Your task to perform on an android device: Open Google Maps Image 0: 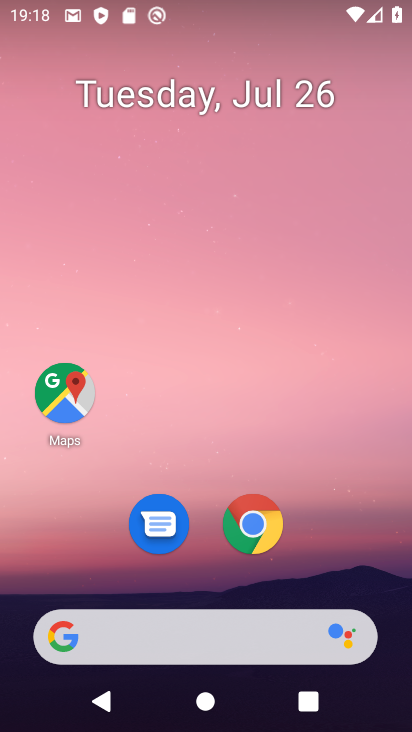
Step 0: click (72, 387)
Your task to perform on an android device: Open Google Maps Image 1: 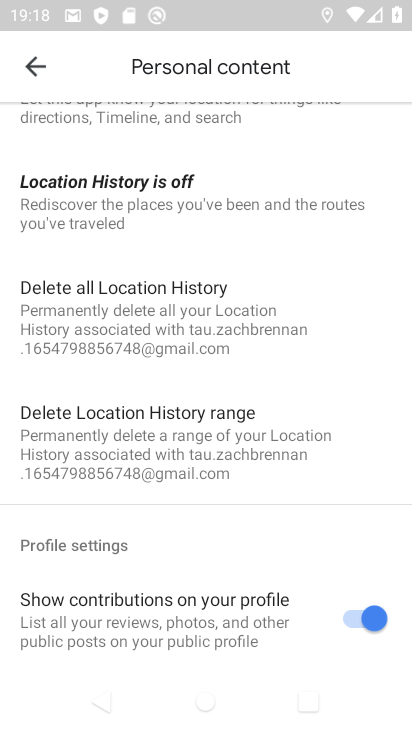
Step 1: click (42, 73)
Your task to perform on an android device: Open Google Maps Image 2: 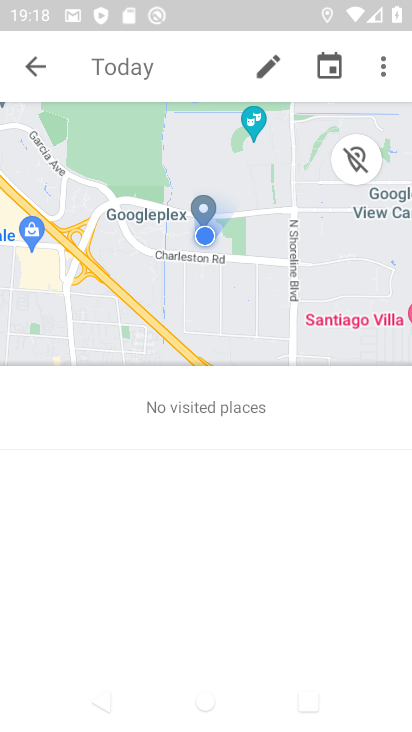
Step 2: click (42, 73)
Your task to perform on an android device: Open Google Maps Image 3: 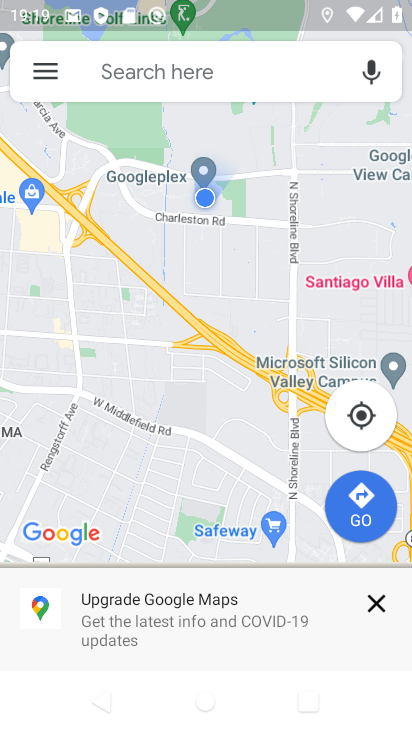
Step 3: click (371, 594)
Your task to perform on an android device: Open Google Maps Image 4: 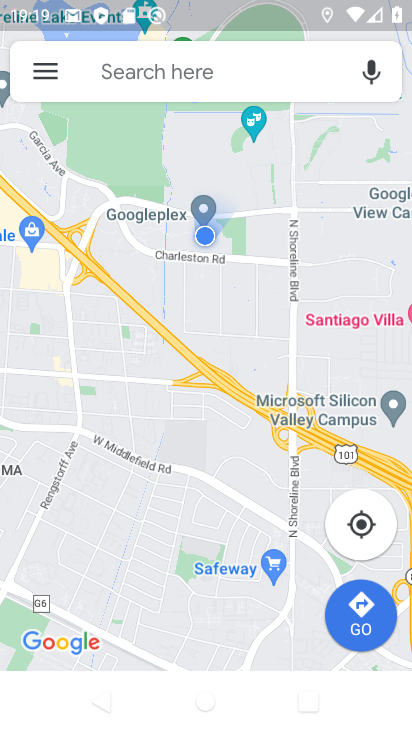
Step 4: task complete